Your task to perform on an android device: turn off notifications settings in the gmail app Image 0: 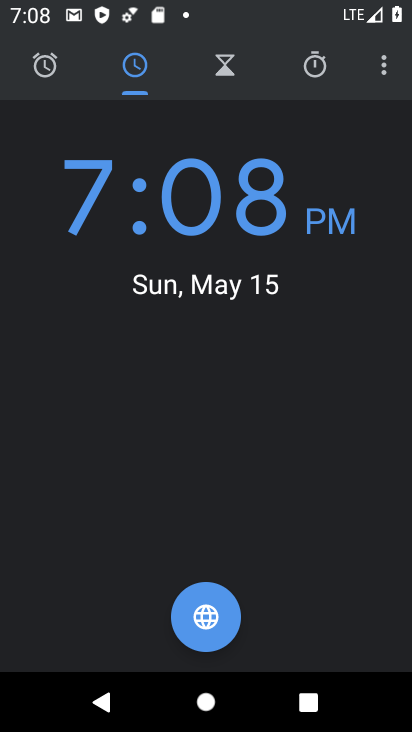
Step 0: press home button
Your task to perform on an android device: turn off notifications settings in the gmail app Image 1: 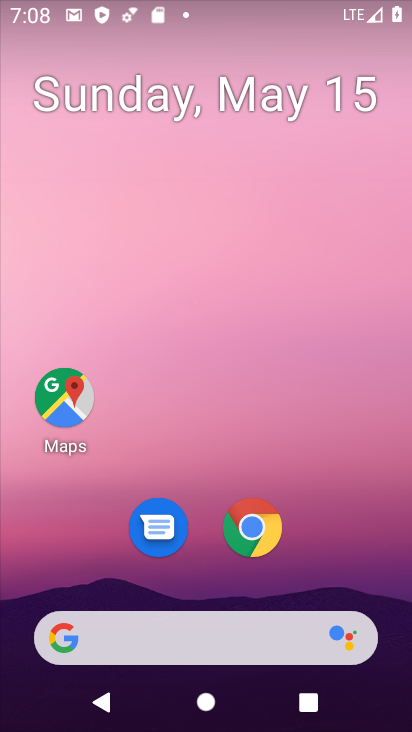
Step 1: drag from (349, 492) to (376, 23)
Your task to perform on an android device: turn off notifications settings in the gmail app Image 2: 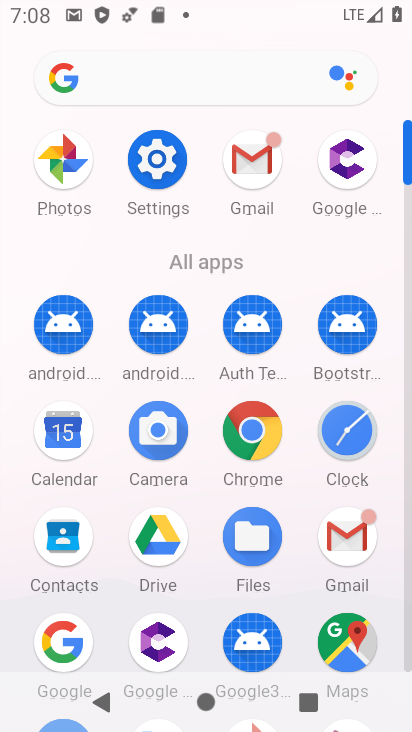
Step 2: click (255, 176)
Your task to perform on an android device: turn off notifications settings in the gmail app Image 3: 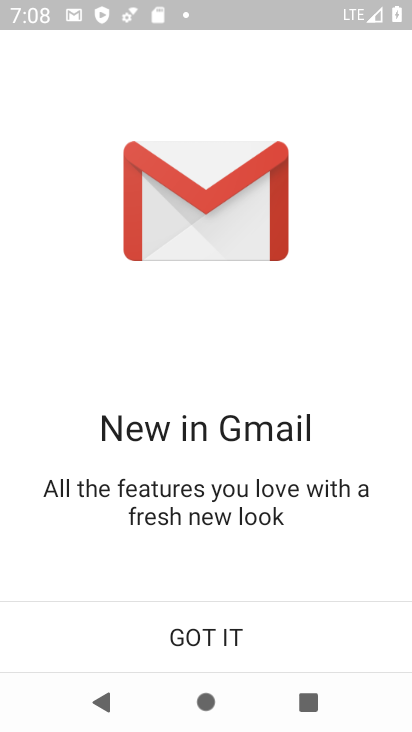
Step 3: click (163, 645)
Your task to perform on an android device: turn off notifications settings in the gmail app Image 4: 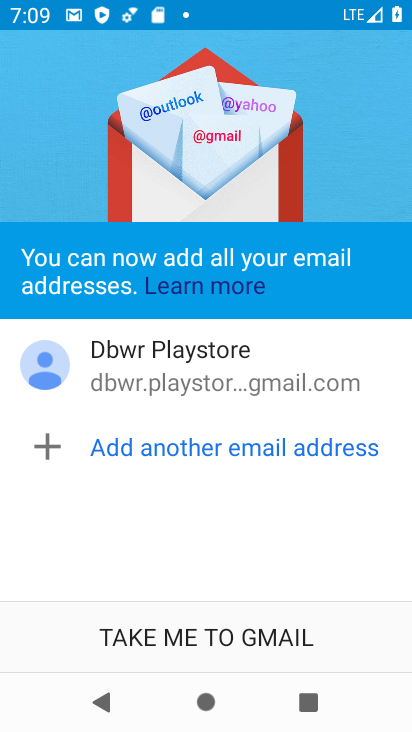
Step 4: click (163, 645)
Your task to perform on an android device: turn off notifications settings in the gmail app Image 5: 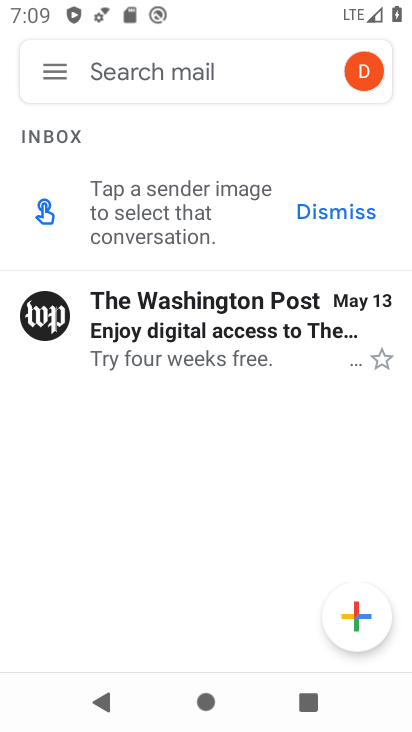
Step 5: click (42, 64)
Your task to perform on an android device: turn off notifications settings in the gmail app Image 6: 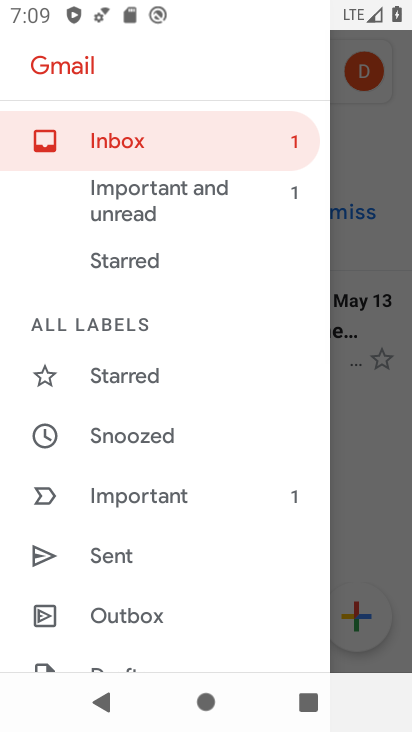
Step 6: drag from (159, 526) to (198, 107)
Your task to perform on an android device: turn off notifications settings in the gmail app Image 7: 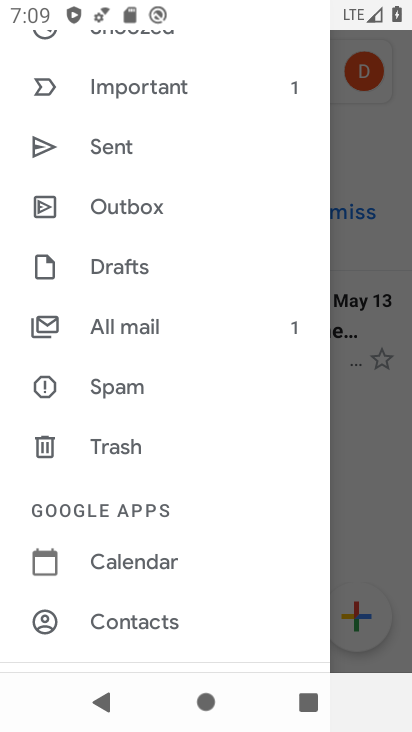
Step 7: drag from (153, 567) to (88, 126)
Your task to perform on an android device: turn off notifications settings in the gmail app Image 8: 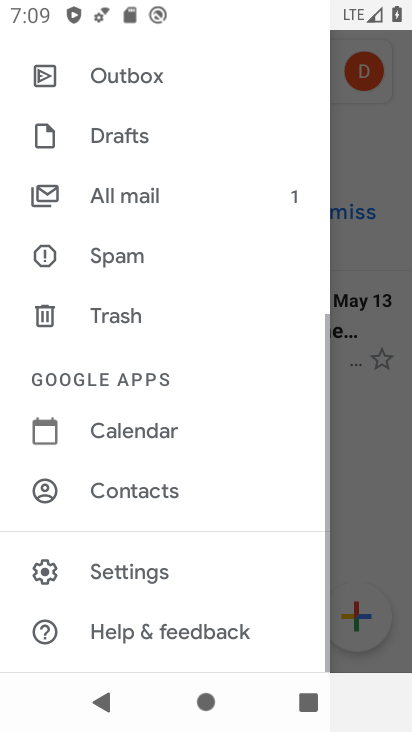
Step 8: click (139, 572)
Your task to perform on an android device: turn off notifications settings in the gmail app Image 9: 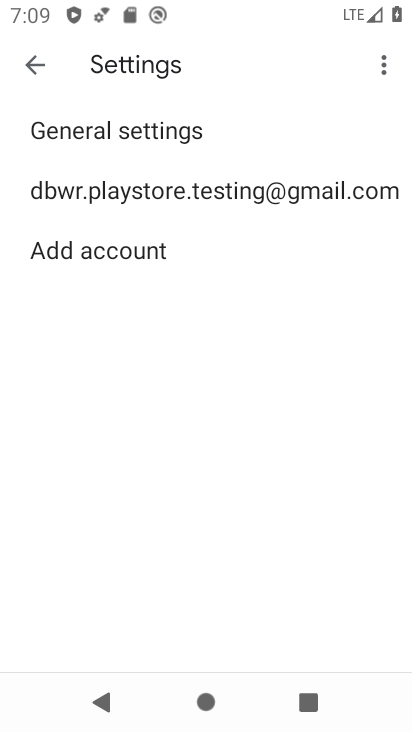
Step 9: click (82, 182)
Your task to perform on an android device: turn off notifications settings in the gmail app Image 10: 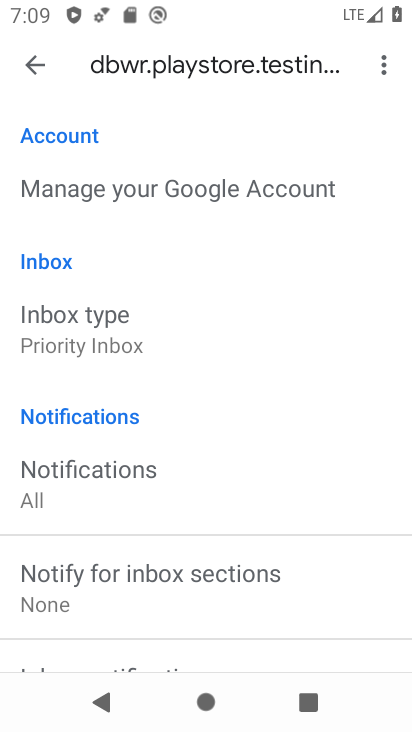
Step 10: click (126, 468)
Your task to perform on an android device: turn off notifications settings in the gmail app Image 11: 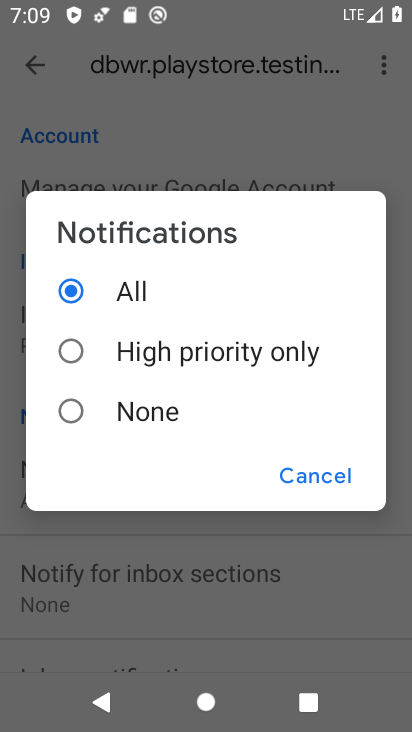
Step 11: click (127, 417)
Your task to perform on an android device: turn off notifications settings in the gmail app Image 12: 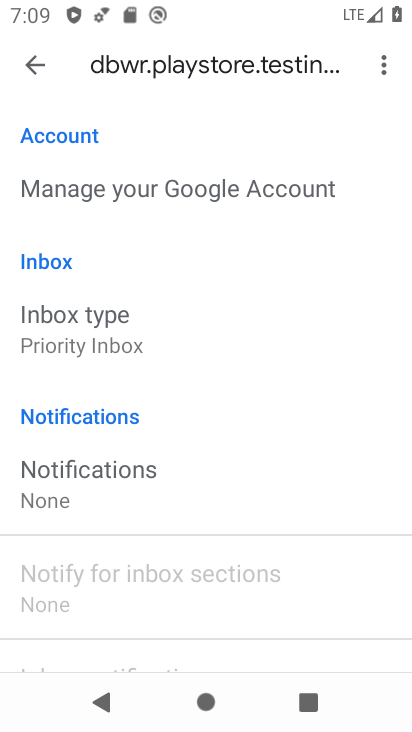
Step 12: task complete